Your task to perform on an android device: Do I have any events today? Image 0: 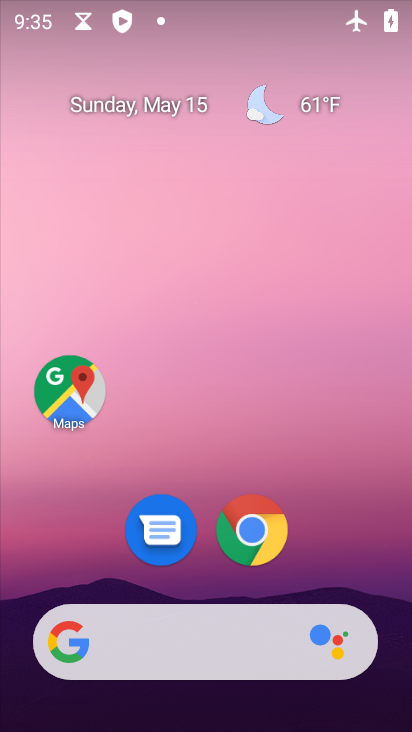
Step 0: drag from (208, 726) to (192, 171)
Your task to perform on an android device: Do I have any events today? Image 1: 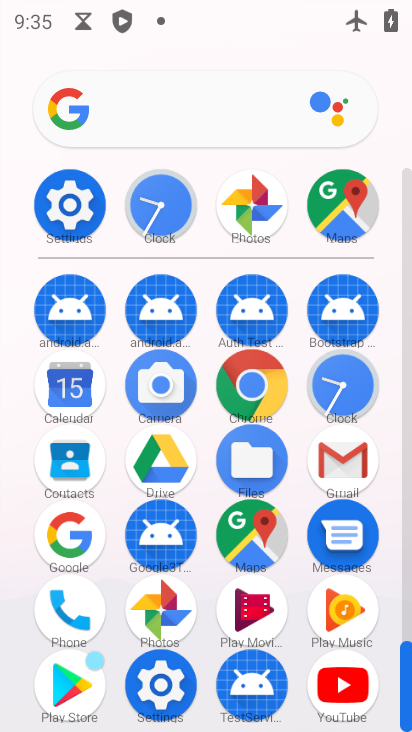
Step 1: click (66, 399)
Your task to perform on an android device: Do I have any events today? Image 2: 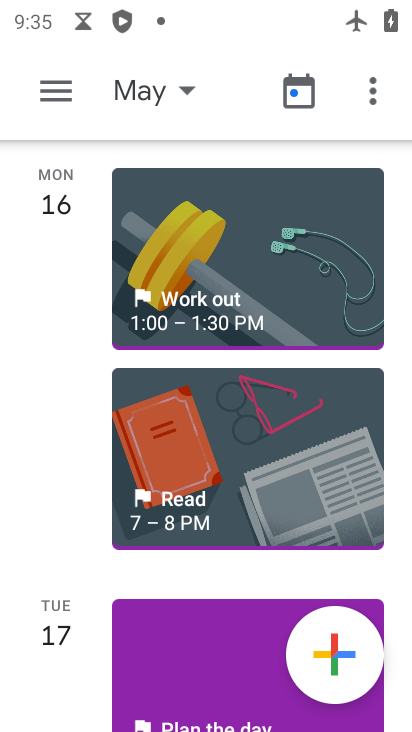
Step 2: click (130, 88)
Your task to perform on an android device: Do I have any events today? Image 3: 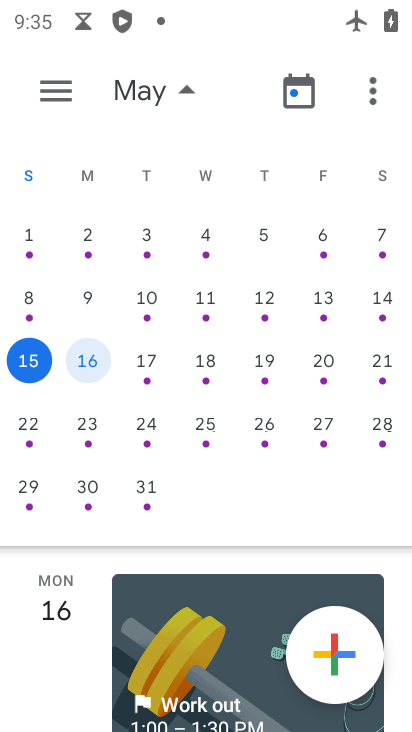
Step 3: click (30, 353)
Your task to perform on an android device: Do I have any events today? Image 4: 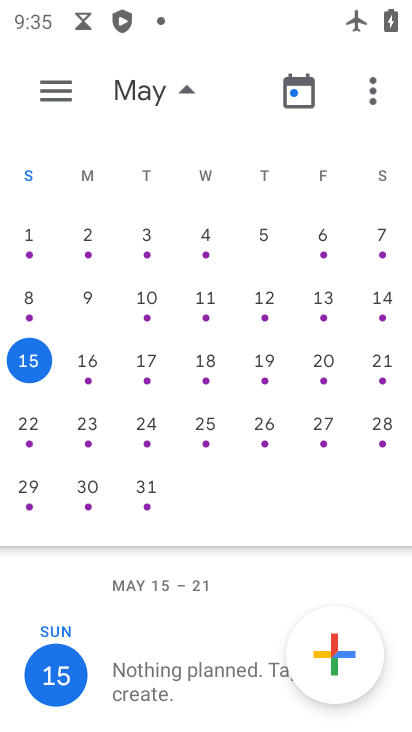
Step 4: click (185, 85)
Your task to perform on an android device: Do I have any events today? Image 5: 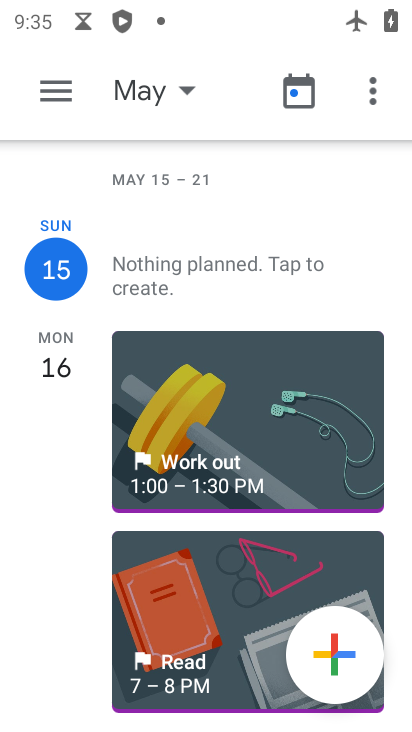
Step 5: task complete